Your task to perform on an android device: open app "Pinterest" (install if not already installed) Image 0: 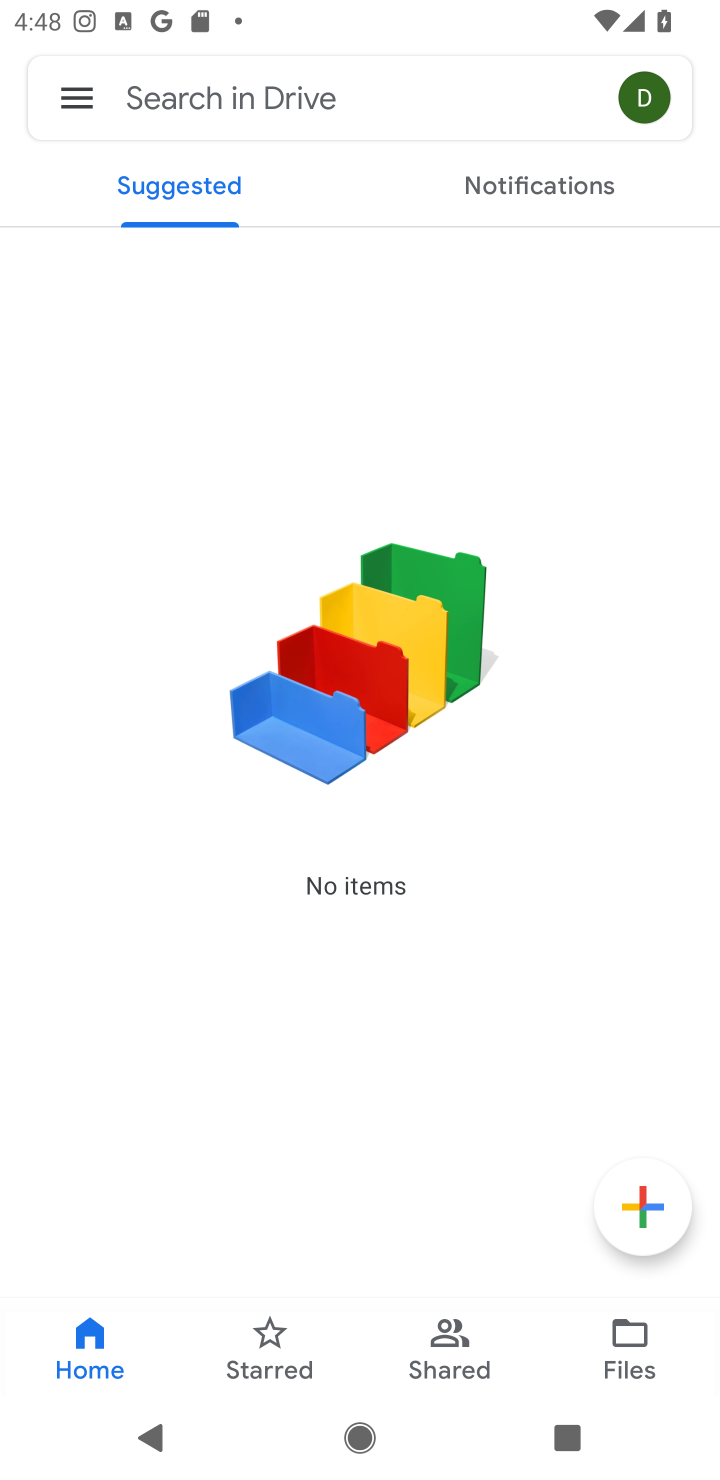
Step 0: press home button
Your task to perform on an android device: open app "Pinterest" (install if not already installed) Image 1: 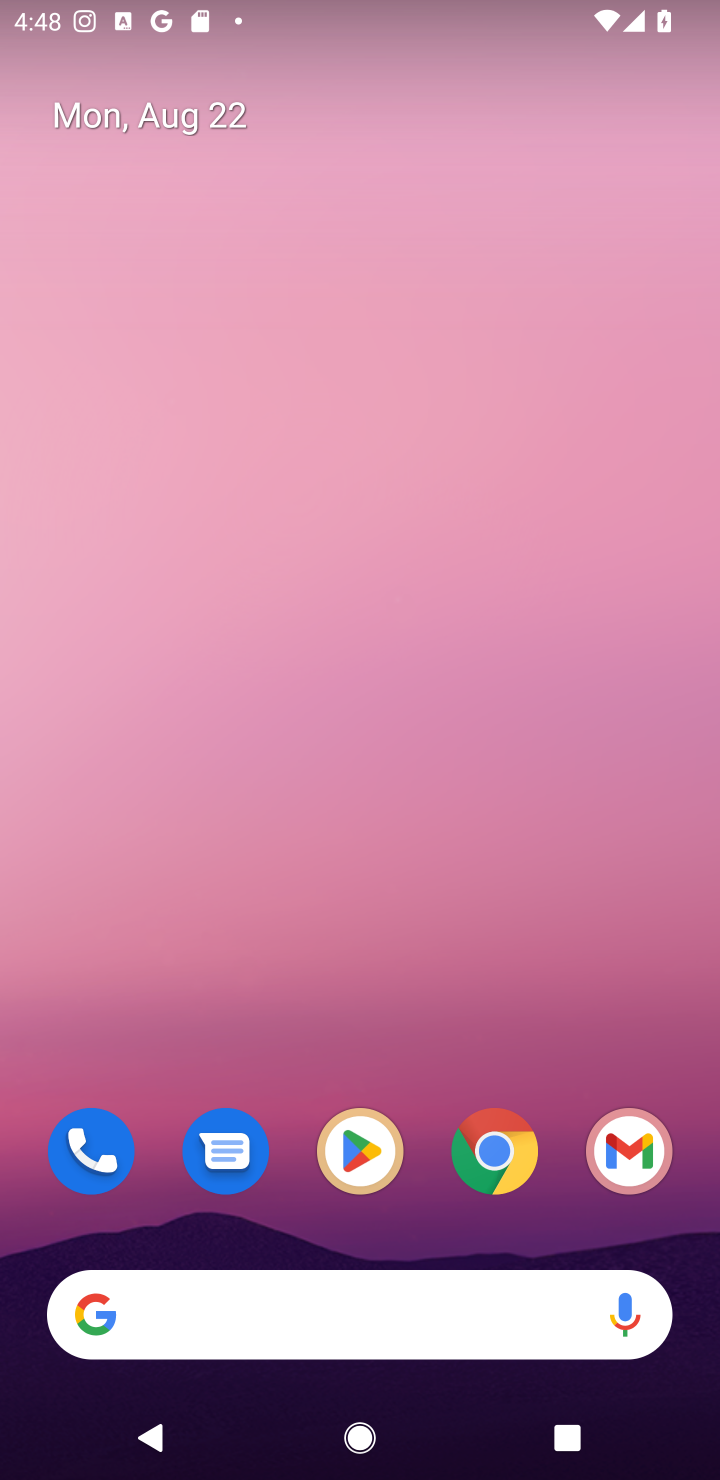
Step 1: click (358, 1154)
Your task to perform on an android device: open app "Pinterest" (install if not already installed) Image 2: 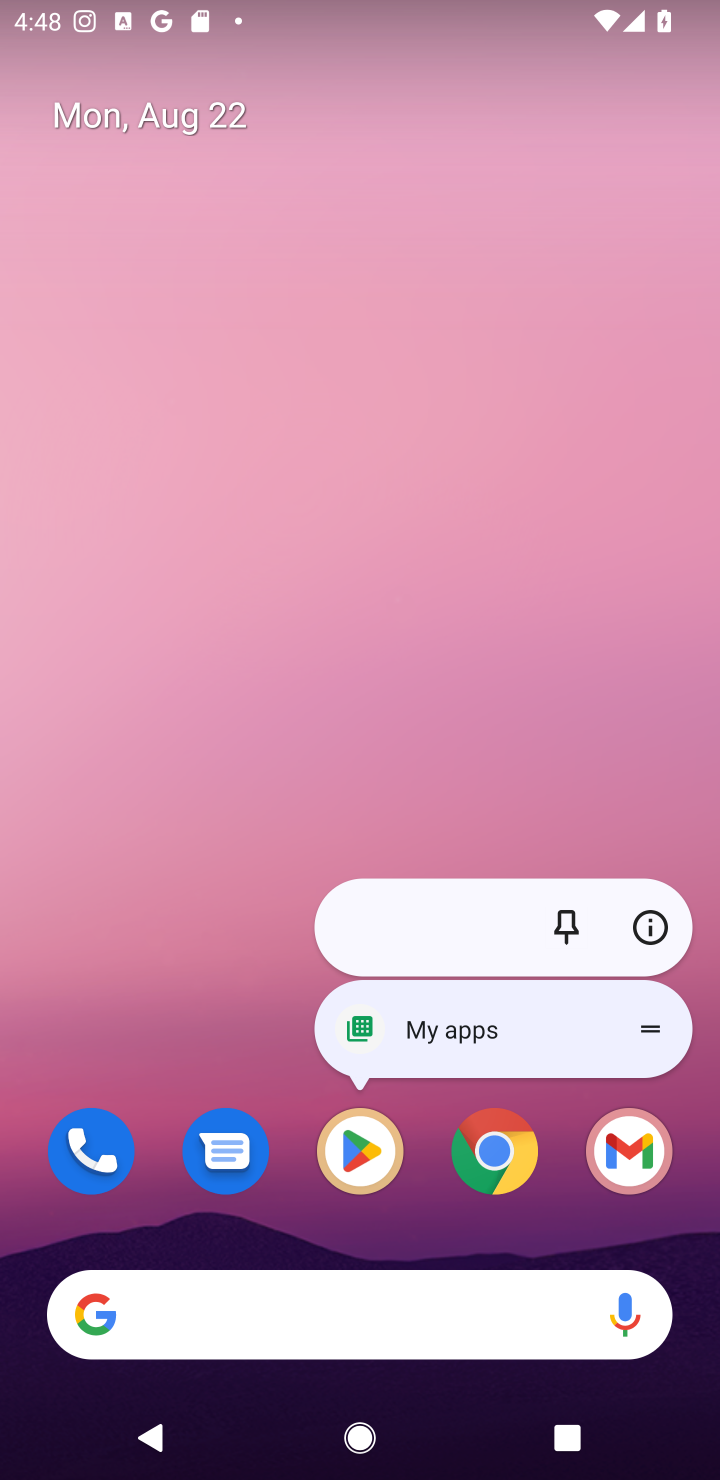
Step 2: click (358, 1154)
Your task to perform on an android device: open app "Pinterest" (install if not already installed) Image 3: 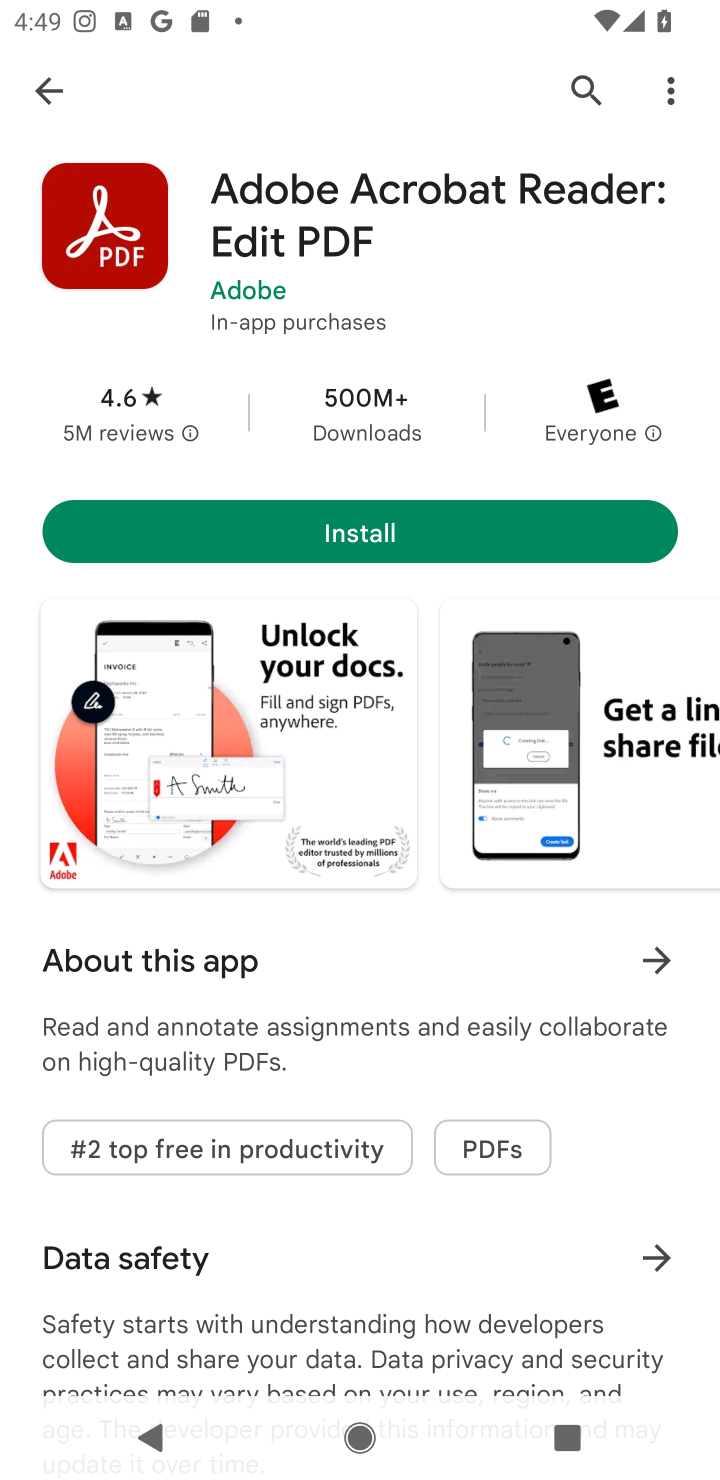
Step 3: click (575, 89)
Your task to perform on an android device: open app "Pinterest" (install if not already installed) Image 4: 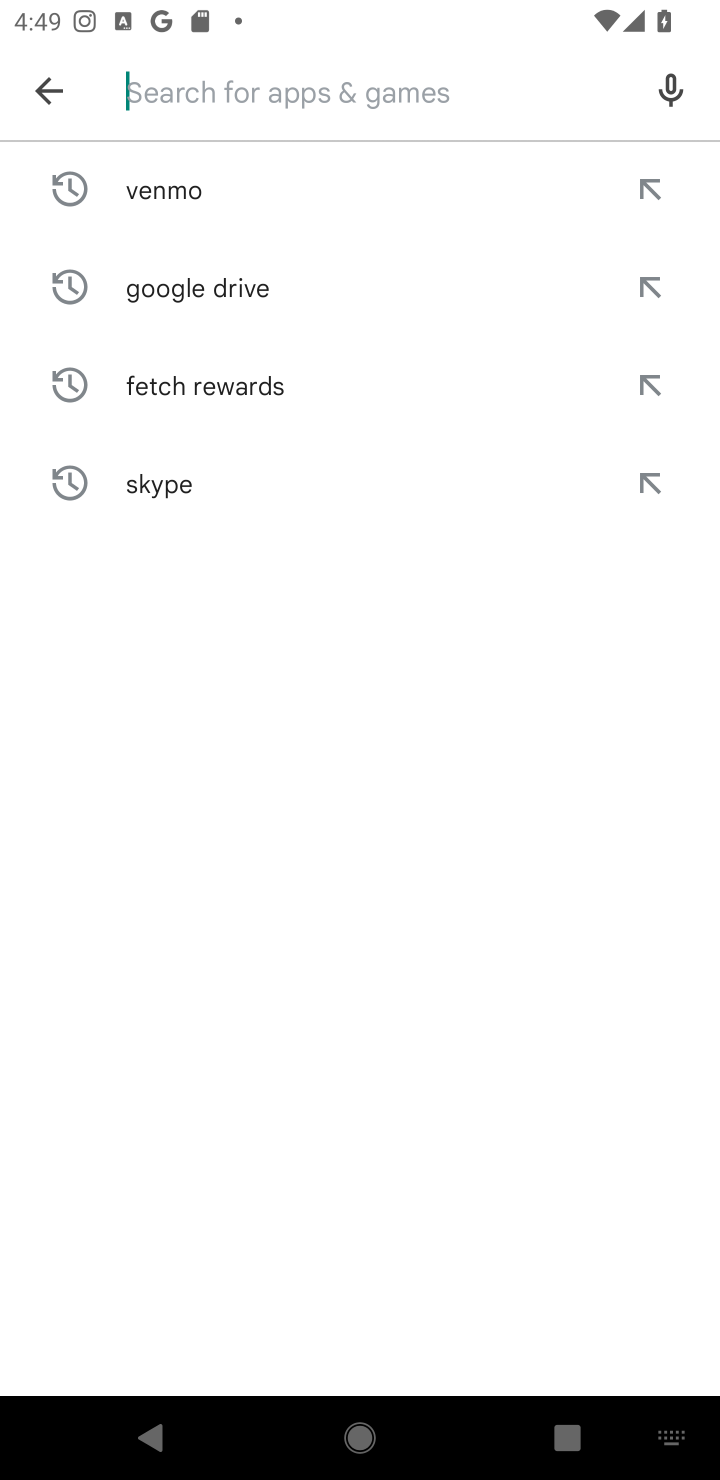
Step 4: type "Pinterest"
Your task to perform on an android device: open app "Pinterest" (install if not already installed) Image 5: 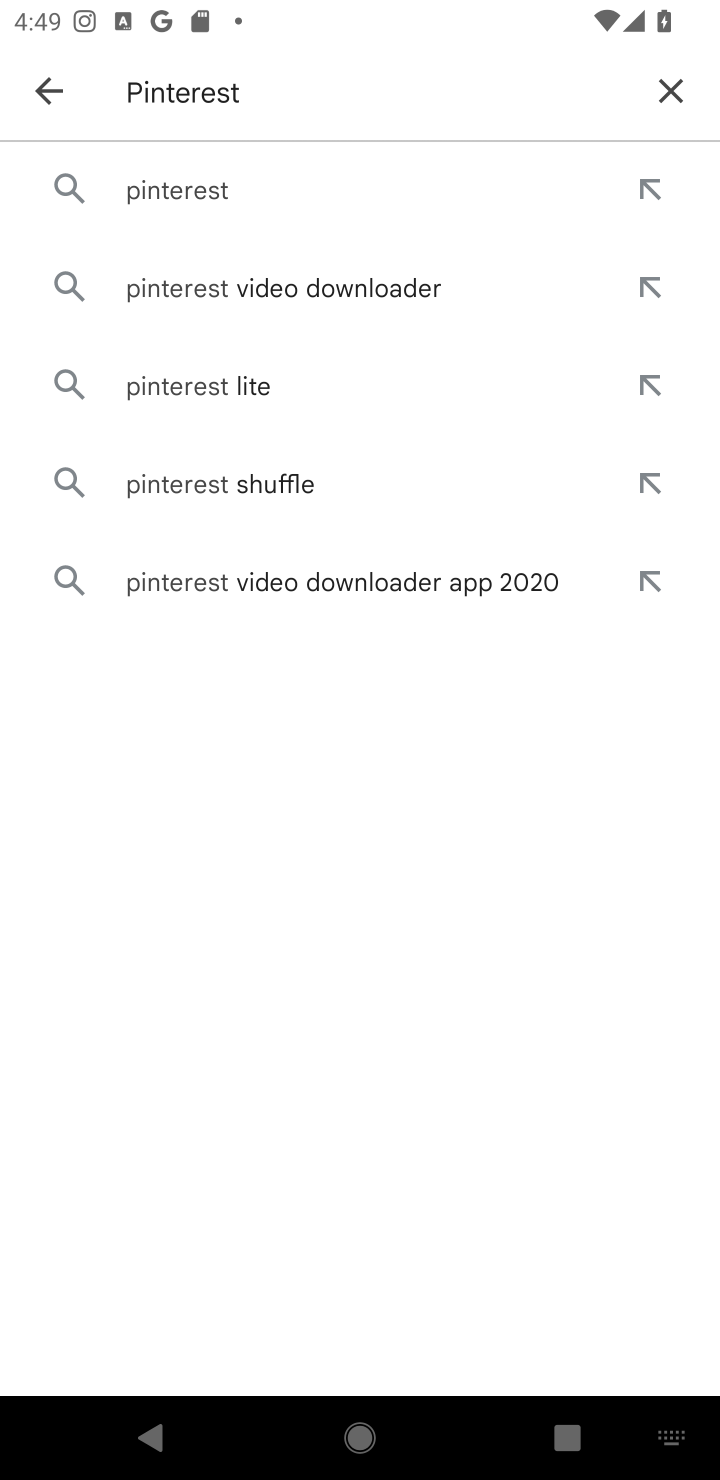
Step 5: click (191, 181)
Your task to perform on an android device: open app "Pinterest" (install if not already installed) Image 6: 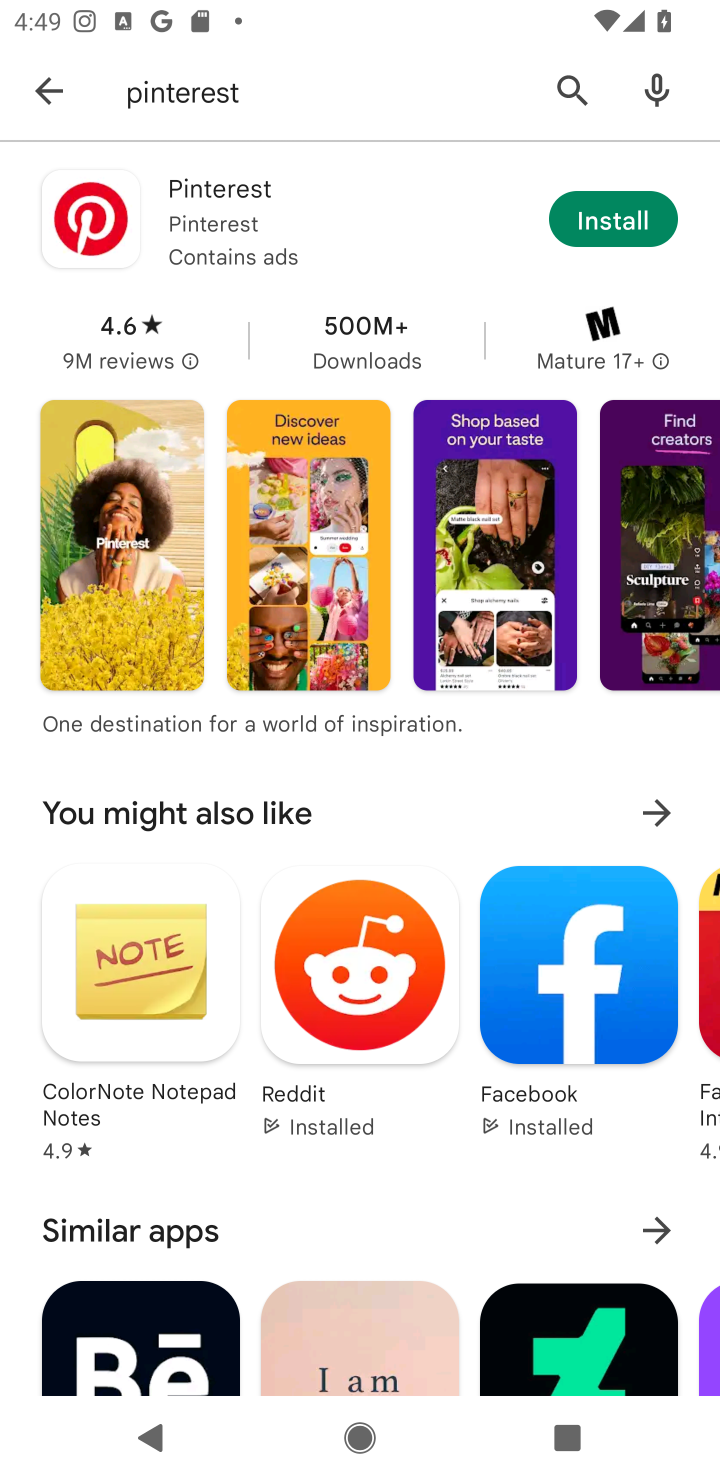
Step 6: click (613, 215)
Your task to perform on an android device: open app "Pinterest" (install if not already installed) Image 7: 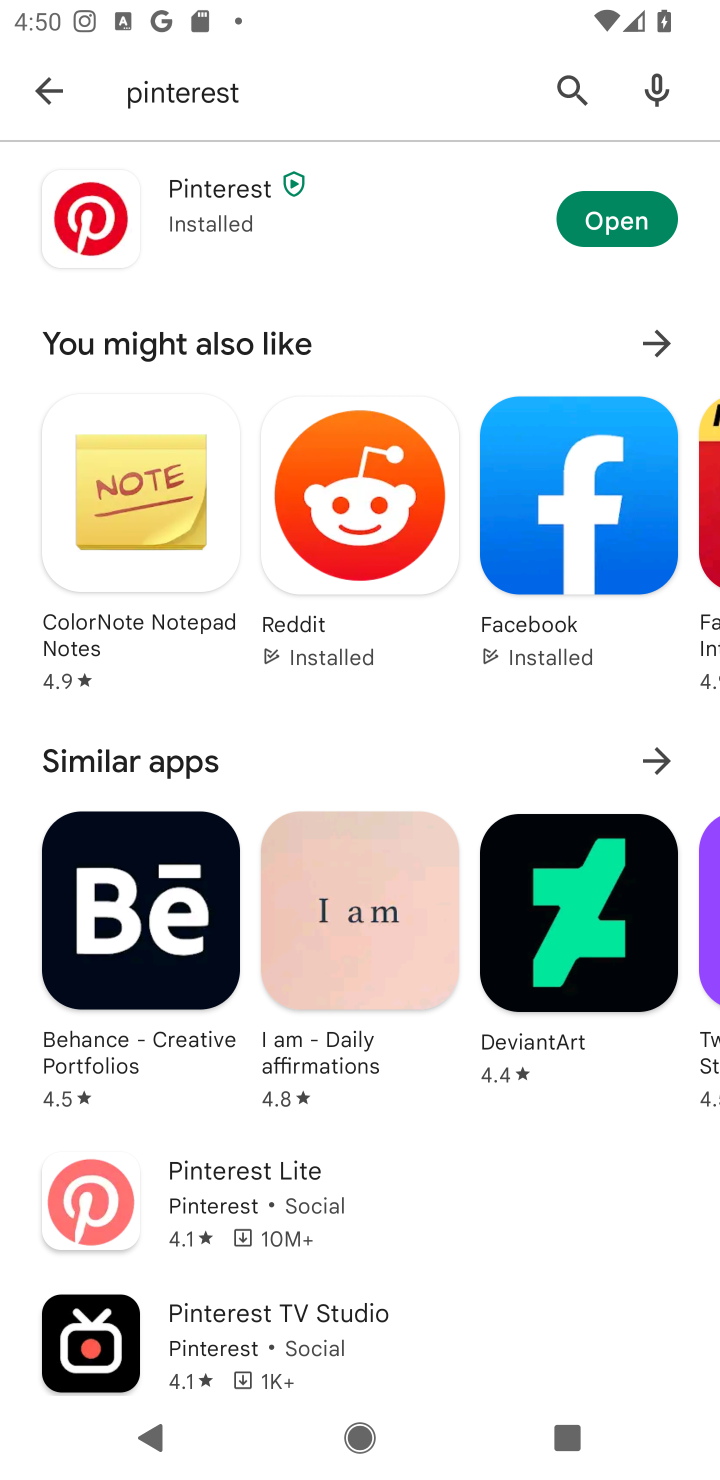
Step 7: click (619, 221)
Your task to perform on an android device: open app "Pinterest" (install if not already installed) Image 8: 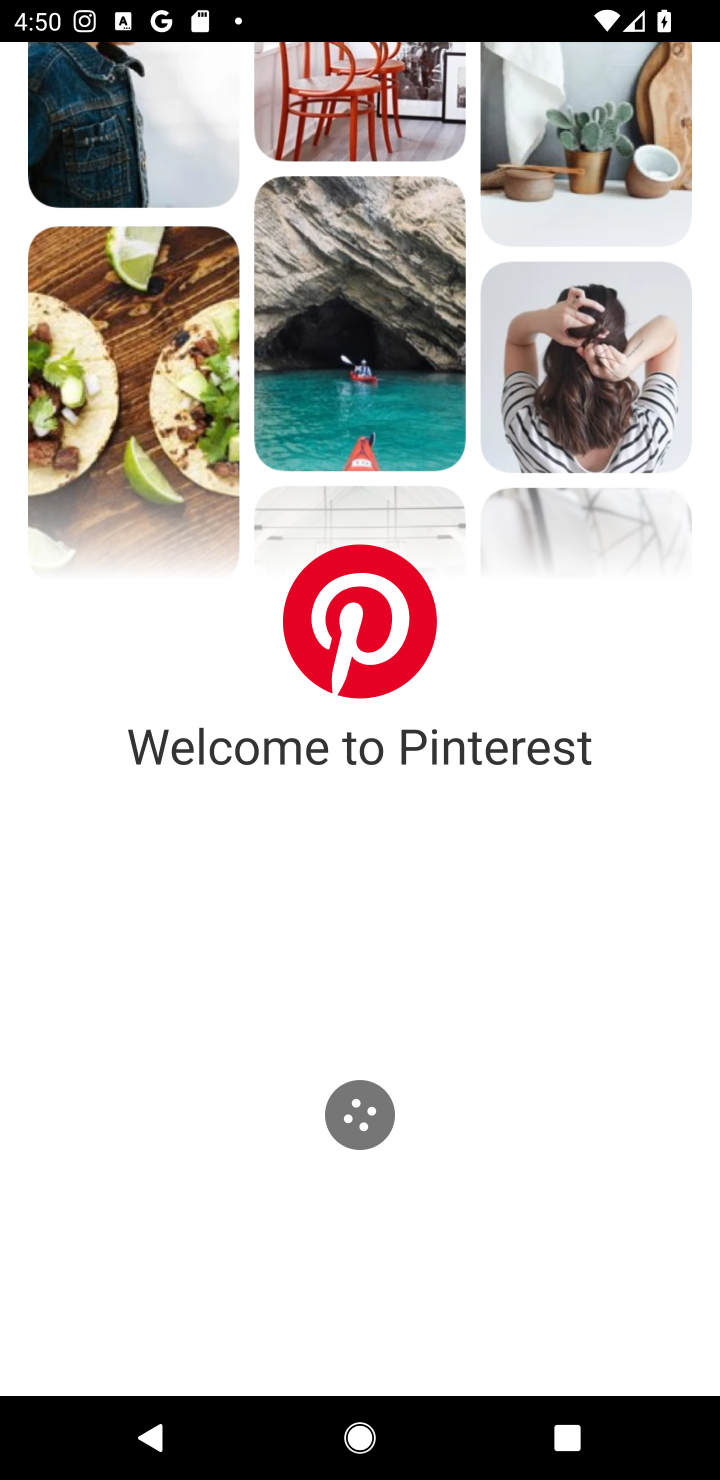
Step 8: task complete